Your task to perform on an android device: add a contact in the contacts app Image 0: 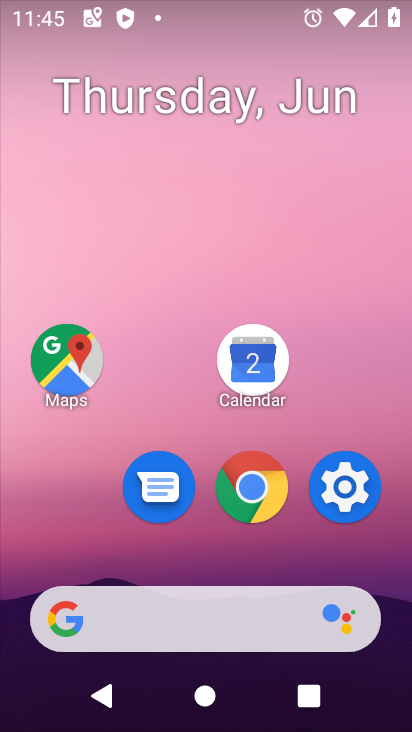
Step 0: drag from (268, 662) to (245, 234)
Your task to perform on an android device: add a contact in the contacts app Image 1: 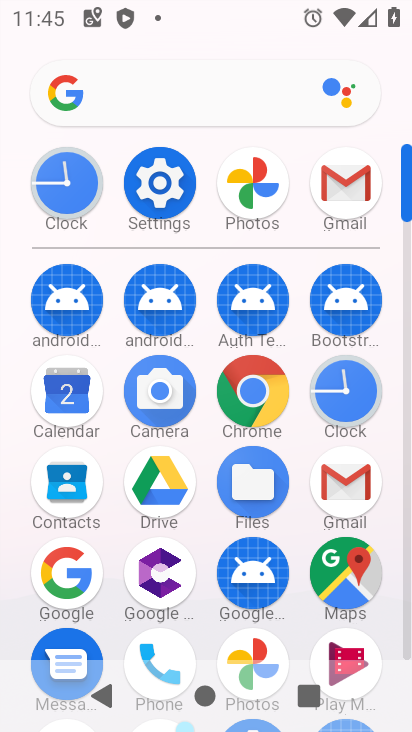
Step 1: click (166, 648)
Your task to perform on an android device: add a contact in the contacts app Image 2: 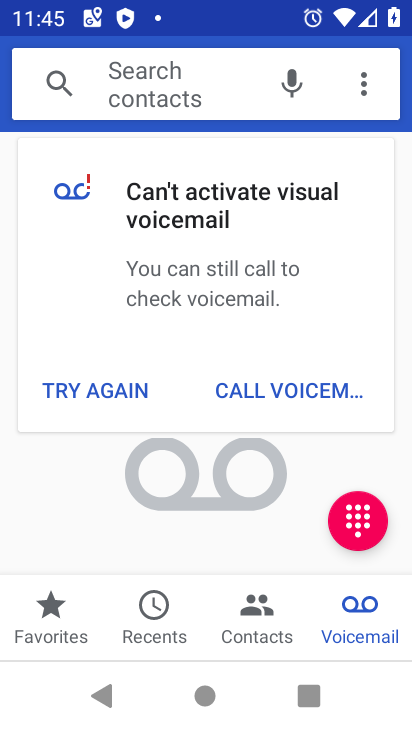
Step 2: click (256, 621)
Your task to perform on an android device: add a contact in the contacts app Image 3: 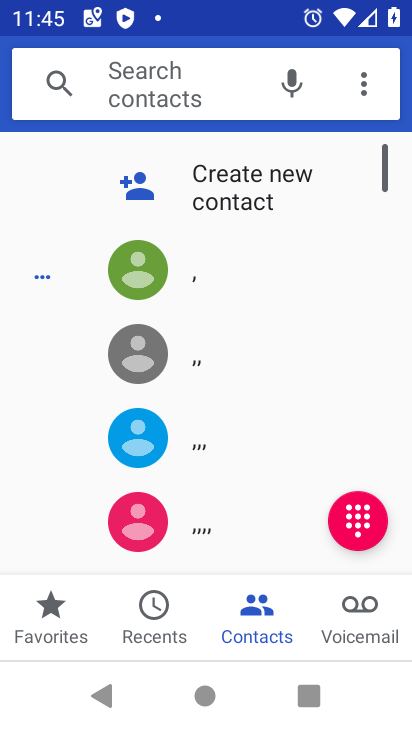
Step 3: click (254, 186)
Your task to perform on an android device: add a contact in the contacts app Image 4: 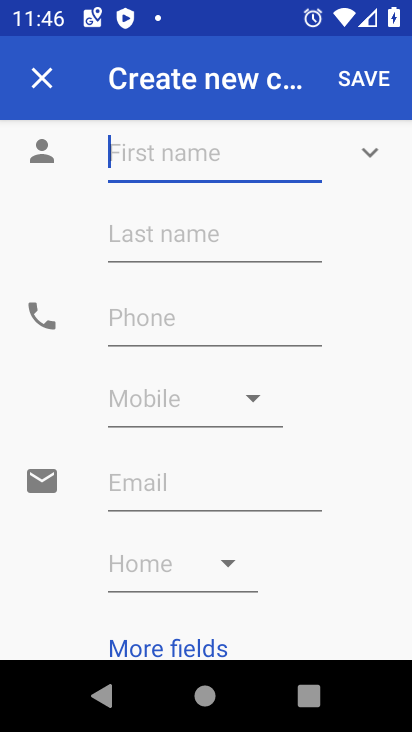
Step 4: click (164, 153)
Your task to perform on an android device: add a contact in the contacts app Image 5: 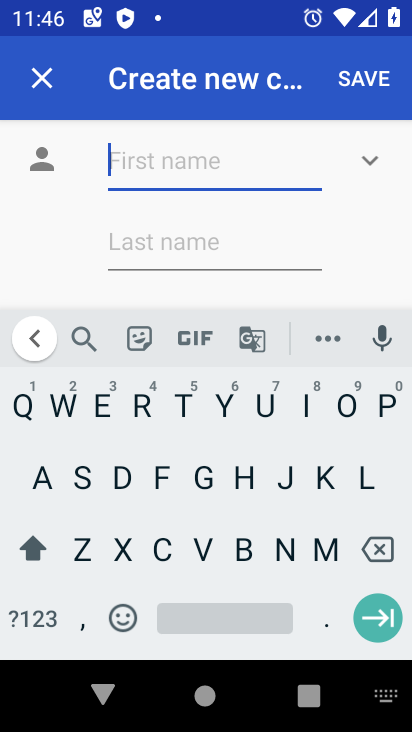
Step 5: click (210, 465)
Your task to perform on an android device: add a contact in the contacts app Image 6: 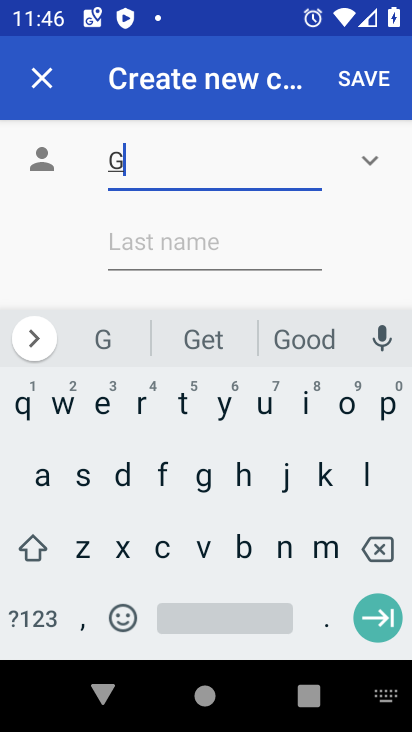
Step 6: click (154, 511)
Your task to perform on an android device: add a contact in the contacts app Image 7: 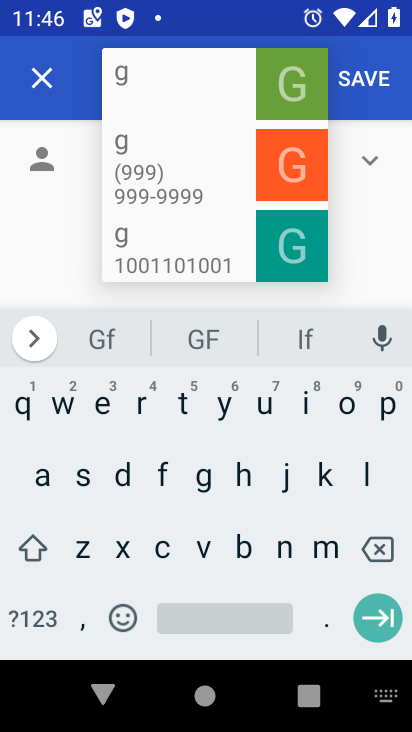
Step 7: click (119, 483)
Your task to perform on an android device: add a contact in the contacts app Image 8: 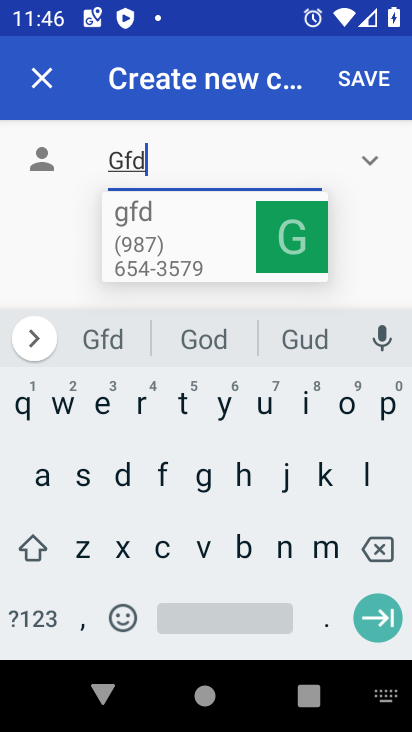
Step 8: click (38, 404)
Your task to perform on an android device: add a contact in the contacts app Image 9: 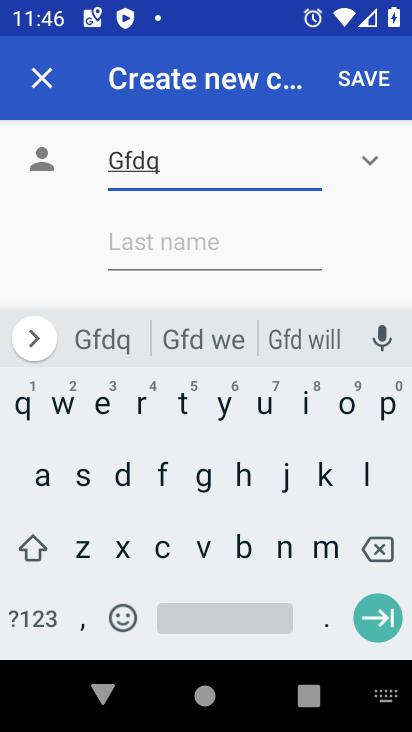
Step 9: click (155, 287)
Your task to perform on an android device: add a contact in the contacts app Image 10: 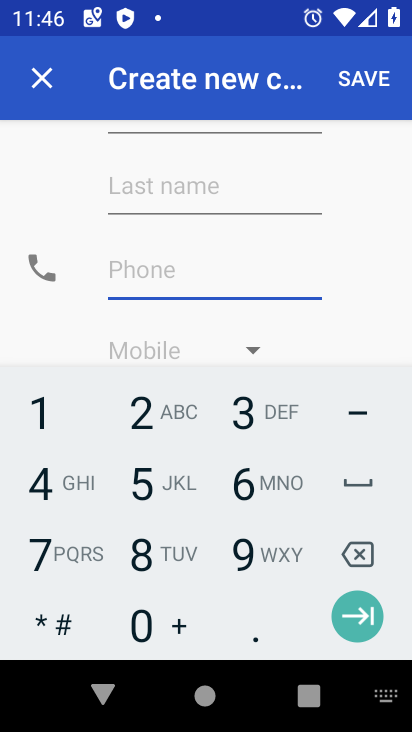
Step 10: click (163, 425)
Your task to perform on an android device: add a contact in the contacts app Image 11: 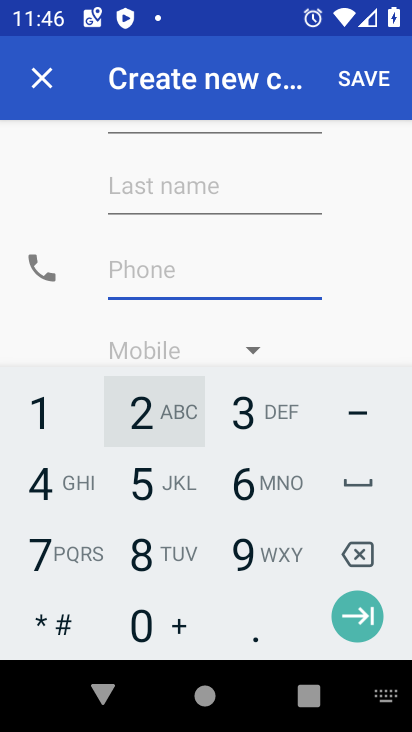
Step 11: click (132, 503)
Your task to perform on an android device: add a contact in the contacts app Image 12: 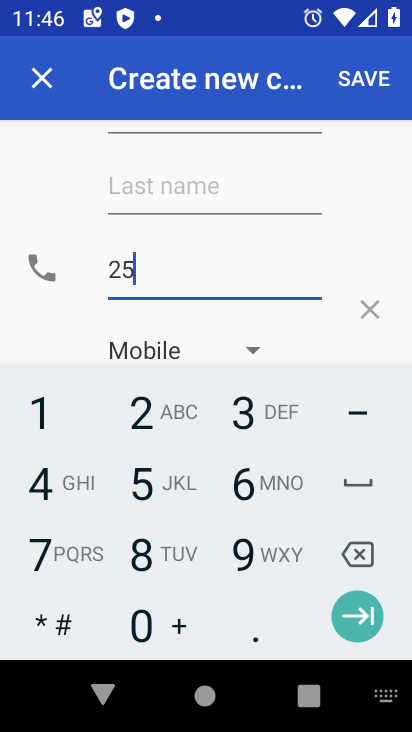
Step 12: click (205, 500)
Your task to perform on an android device: add a contact in the contacts app Image 13: 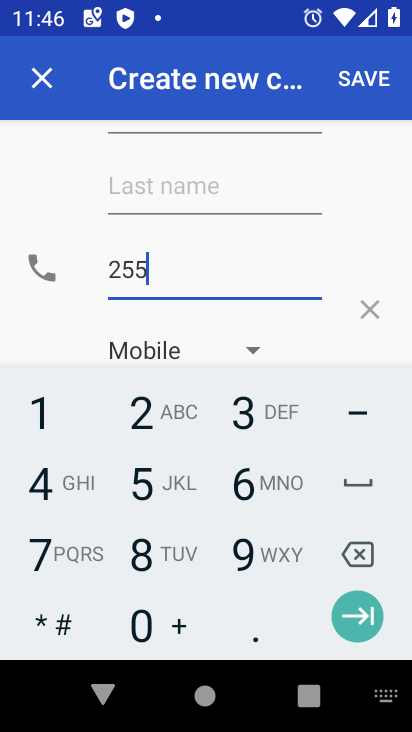
Step 13: click (141, 537)
Your task to perform on an android device: add a contact in the contacts app Image 14: 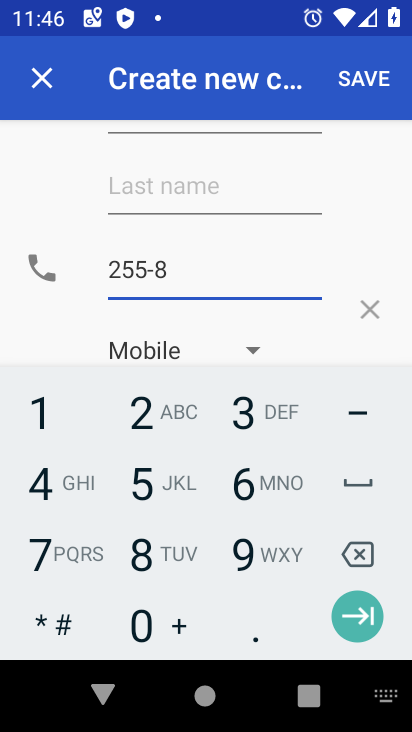
Step 14: click (67, 501)
Your task to perform on an android device: add a contact in the contacts app Image 15: 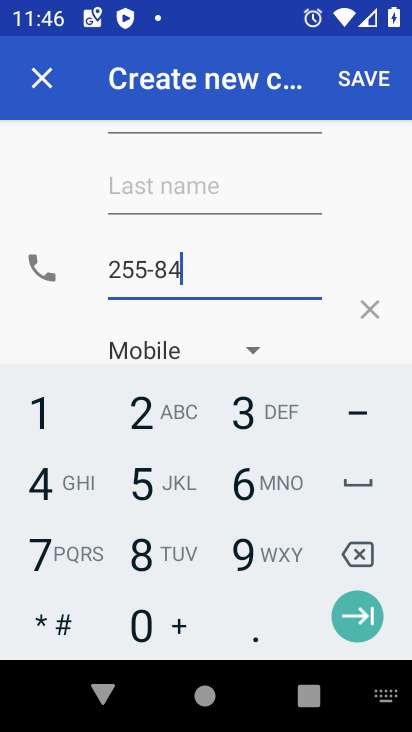
Step 15: click (127, 533)
Your task to perform on an android device: add a contact in the contacts app Image 16: 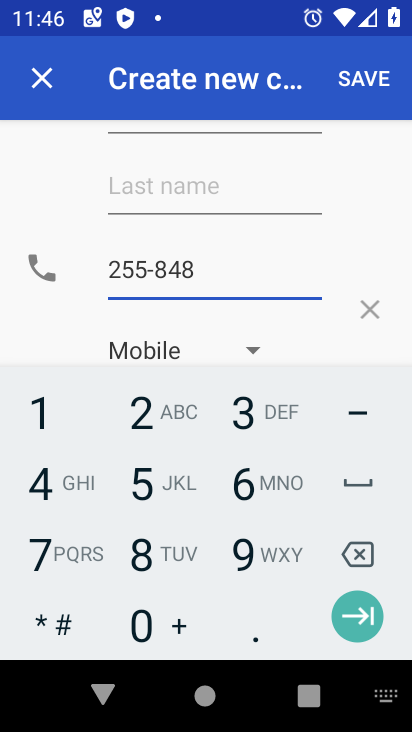
Step 16: click (134, 422)
Your task to perform on an android device: add a contact in the contacts app Image 17: 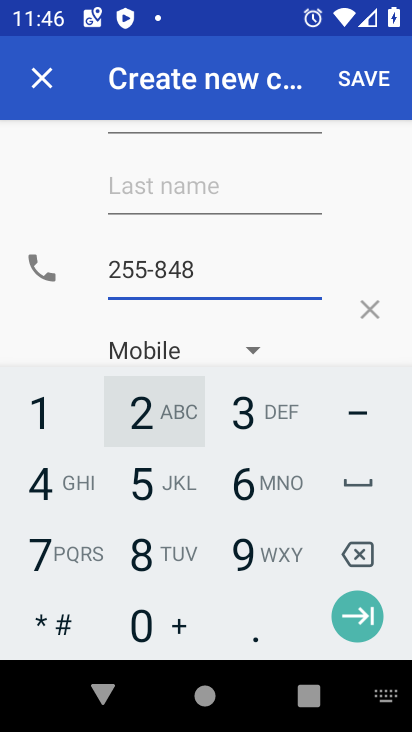
Step 17: click (141, 478)
Your task to perform on an android device: add a contact in the contacts app Image 18: 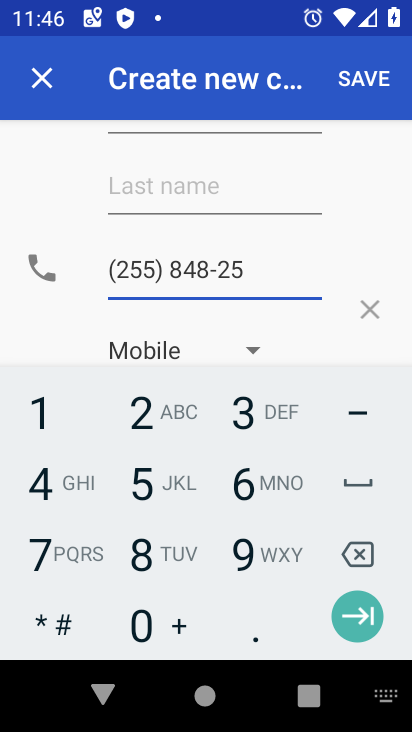
Step 18: click (356, 85)
Your task to perform on an android device: add a contact in the contacts app Image 19: 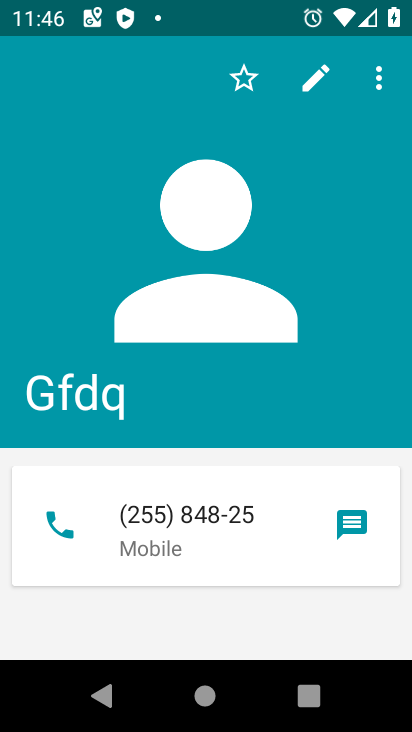
Step 19: task complete